Your task to perform on an android device: Open ESPN.com Image 0: 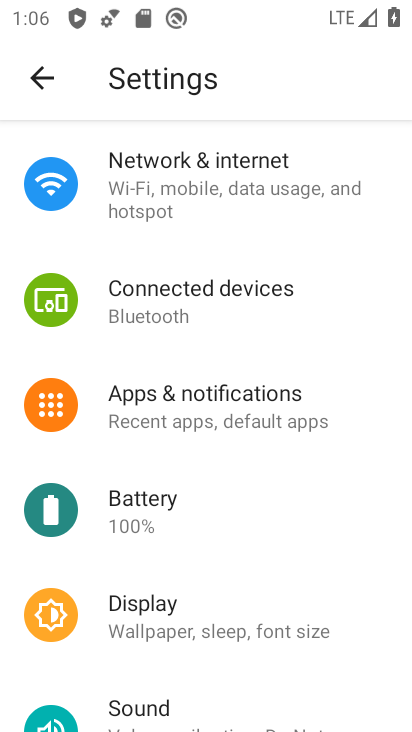
Step 0: press home button
Your task to perform on an android device: Open ESPN.com Image 1: 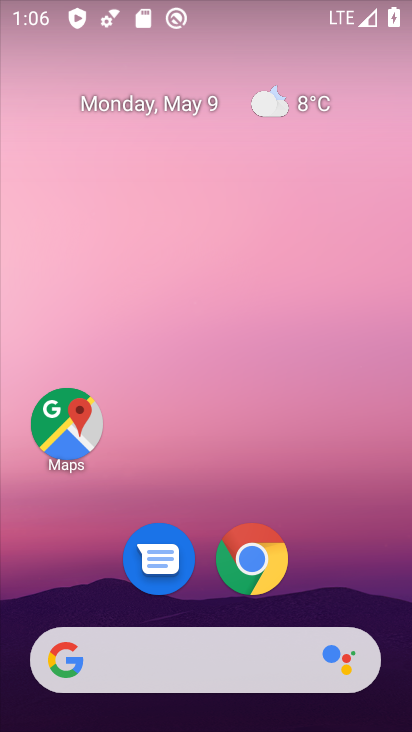
Step 1: click (257, 565)
Your task to perform on an android device: Open ESPN.com Image 2: 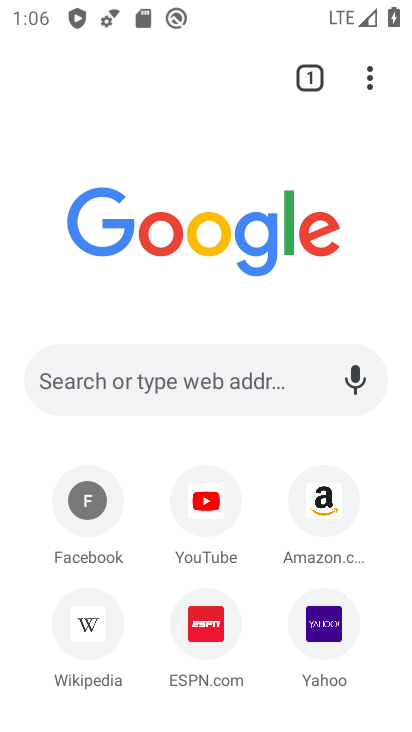
Step 2: click (216, 635)
Your task to perform on an android device: Open ESPN.com Image 3: 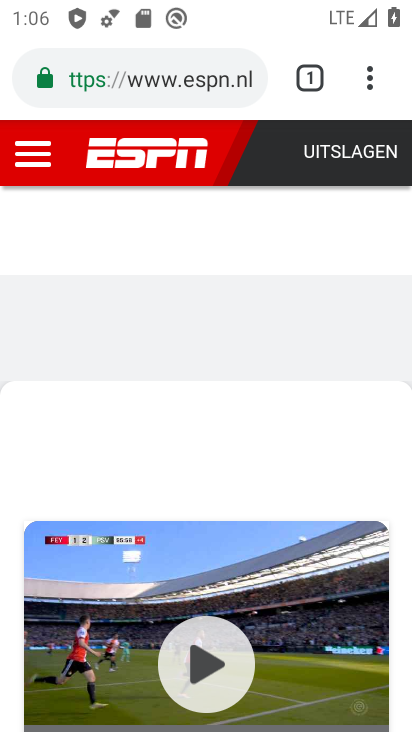
Step 3: task complete